Your task to perform on an android device: turn off notifications in google photos Image 0: 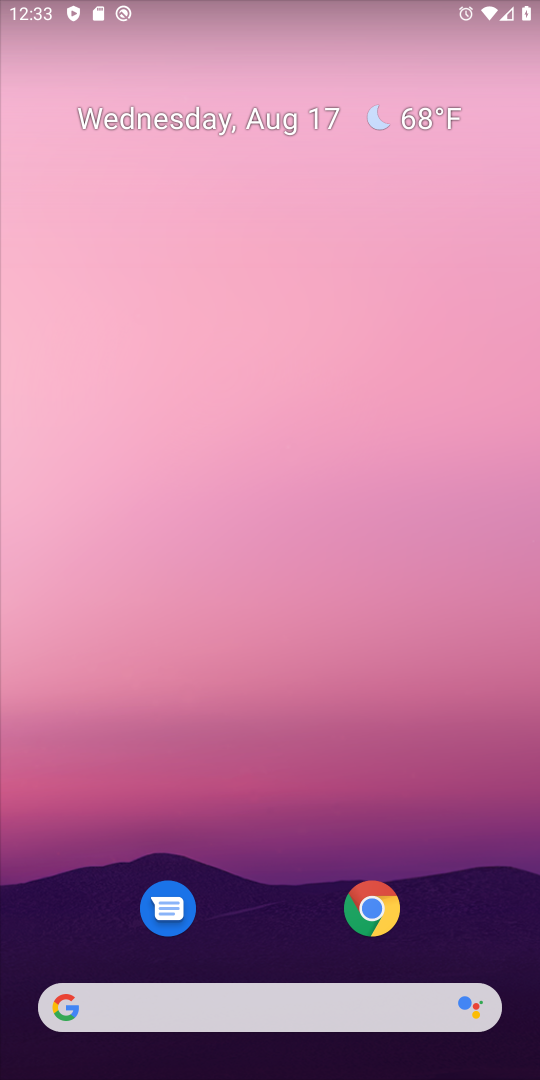
Step 0: drag from (267, 903) to (286, 269)
Your task to perform on an android device: turn off notifications in google photos Image 1: 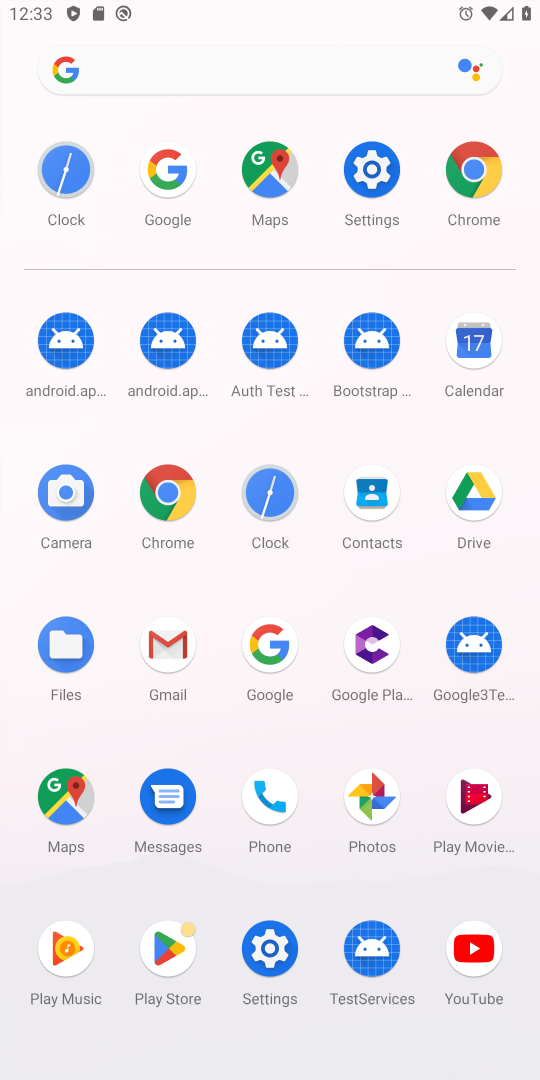
Step 1: click (373, 806)
Your task to perform on an android device: turn off notifications in google photos Image 2: 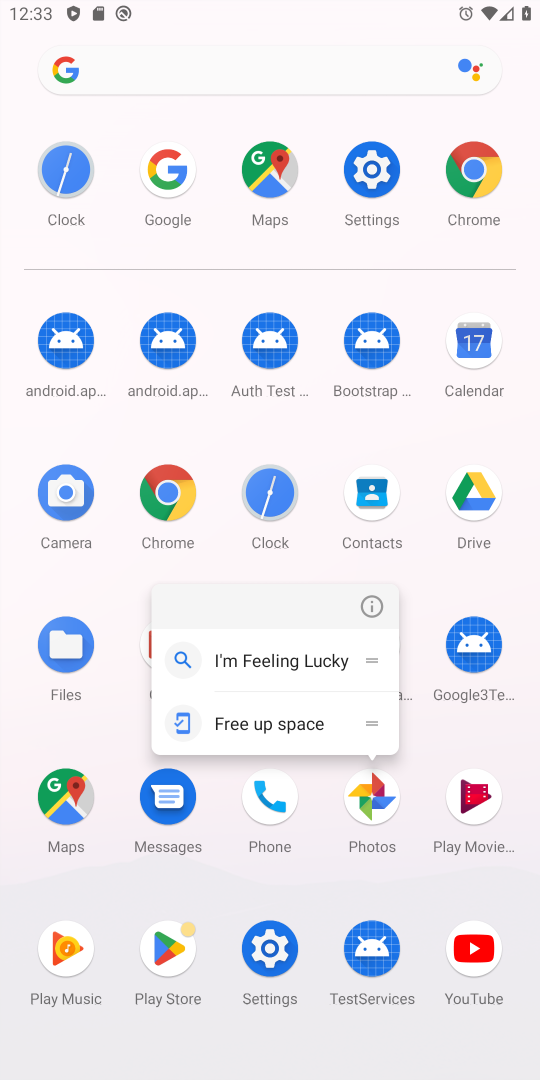
Step 2: click (373, 806)
Your task to perform on an android device: turn off notifications in google photos Image 3: 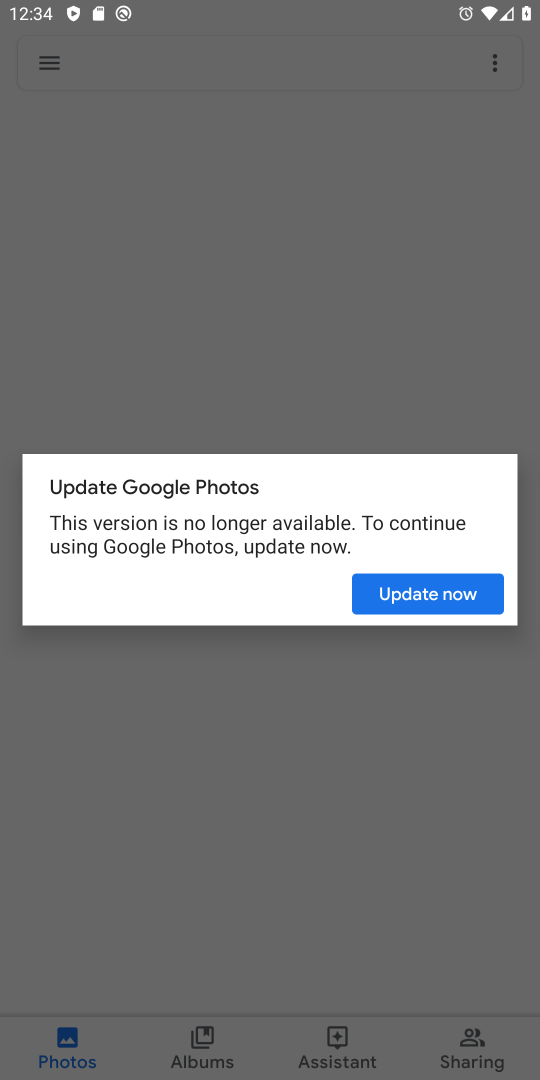
Step 3: click (387, 604)
Your task to perform on an android device: turn off notifications in google photos Image 4: 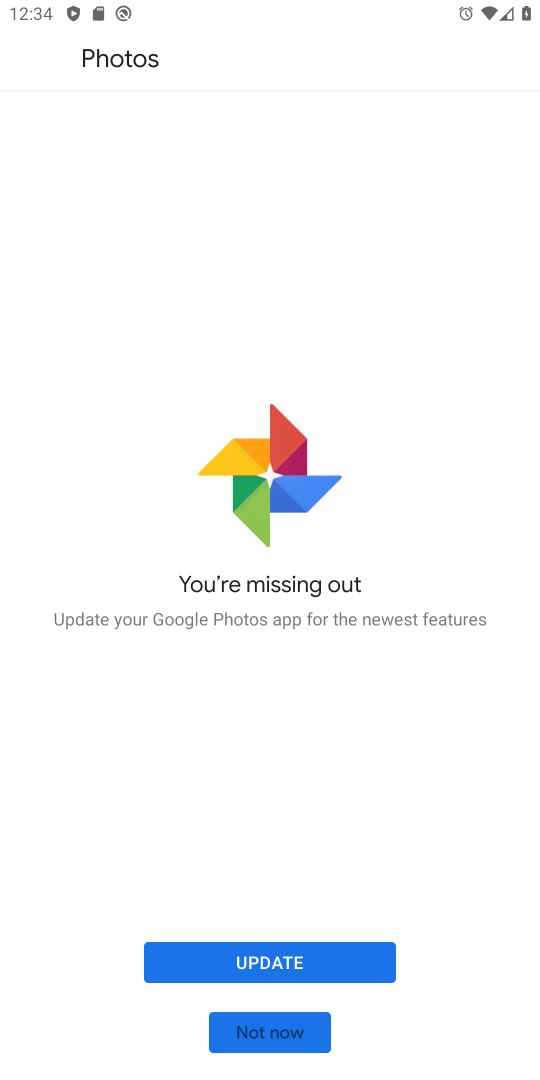
Step 4: click (263, 1014)
Your task to perform on an android device: turn off notifications in google photos Image 5: 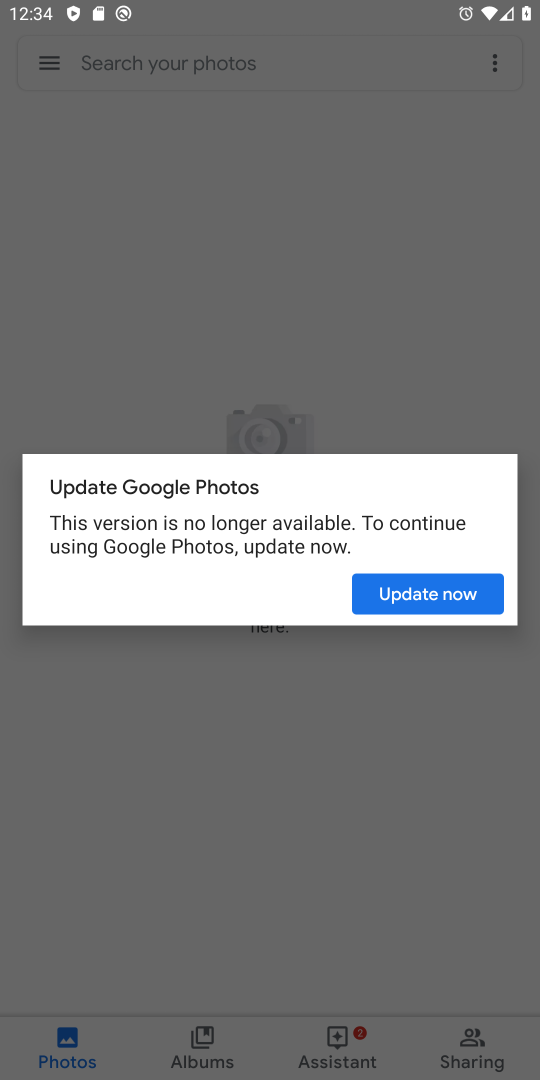
Step 5: click (456, 597)
Your task to perform on an android device: turn off notifications in google photos Image 6: 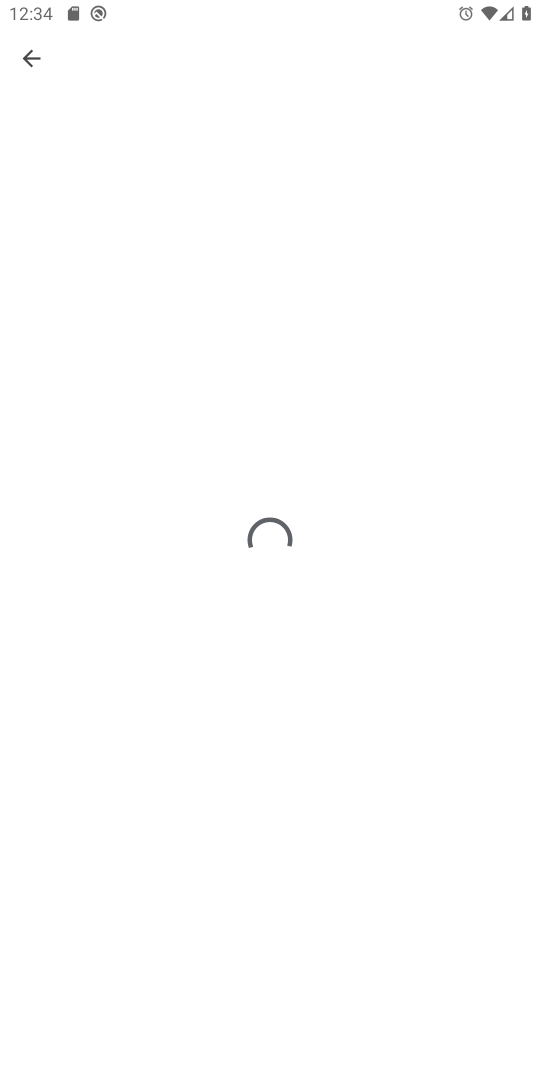
Step 6: press back button
Your task to perform on an android device: turn off notifications in google photos Image 7: 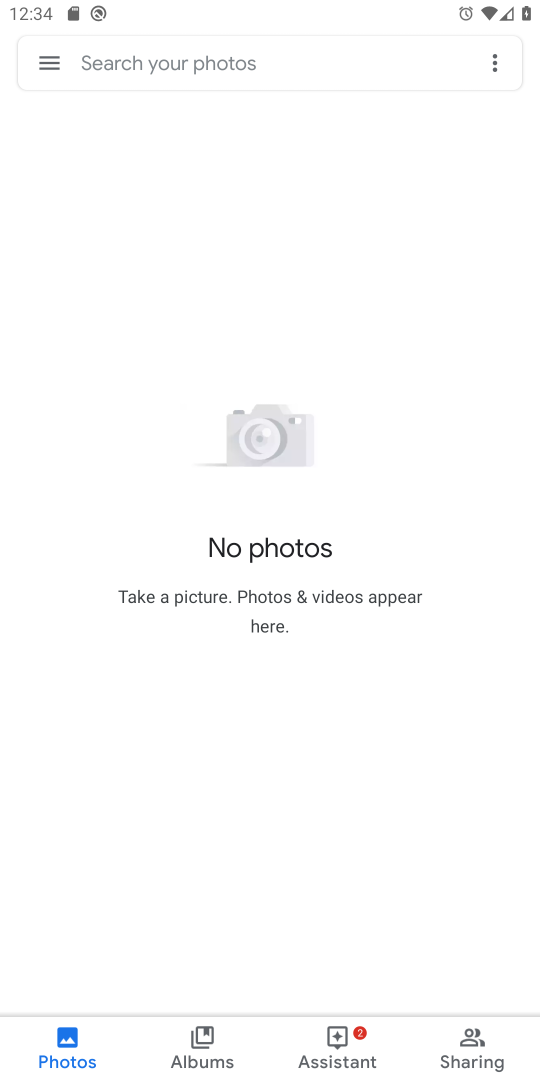
Step 7: click (43, 66)
Your task to perform on an android device: turn off notifications in google photos Image 8: 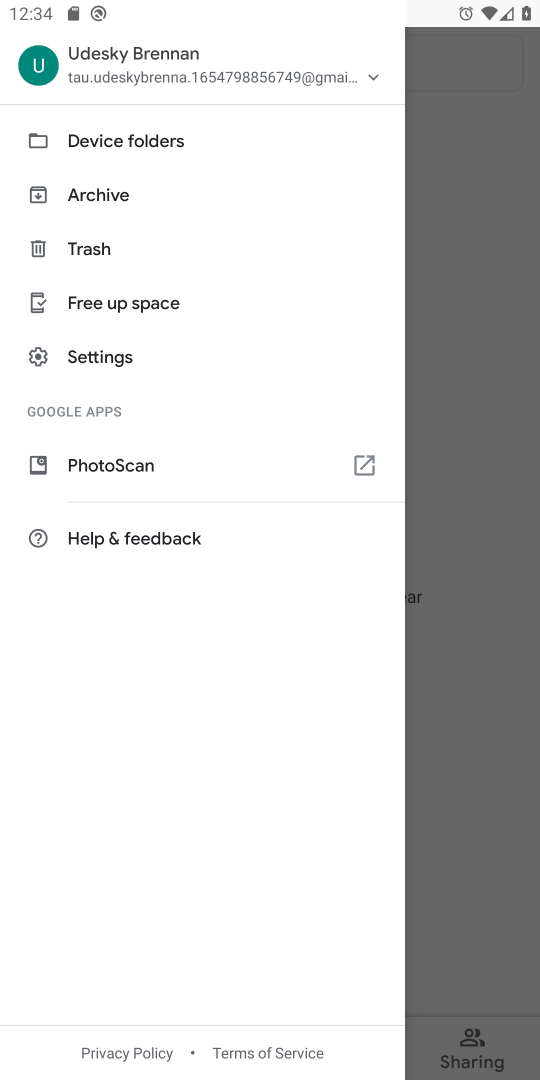
Step 8: click (80, 351)
Your task to perform on an android device: turn off notifications in google photos Image 9: 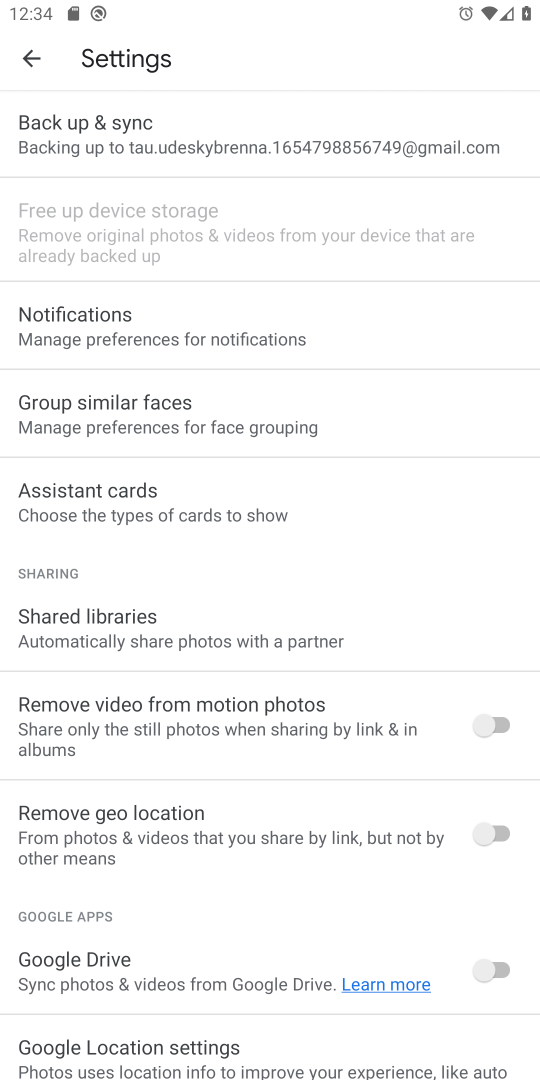
Step 9: click (133, 322)
Your task to perform on an android device: turn off notifications in google photos Image 10: 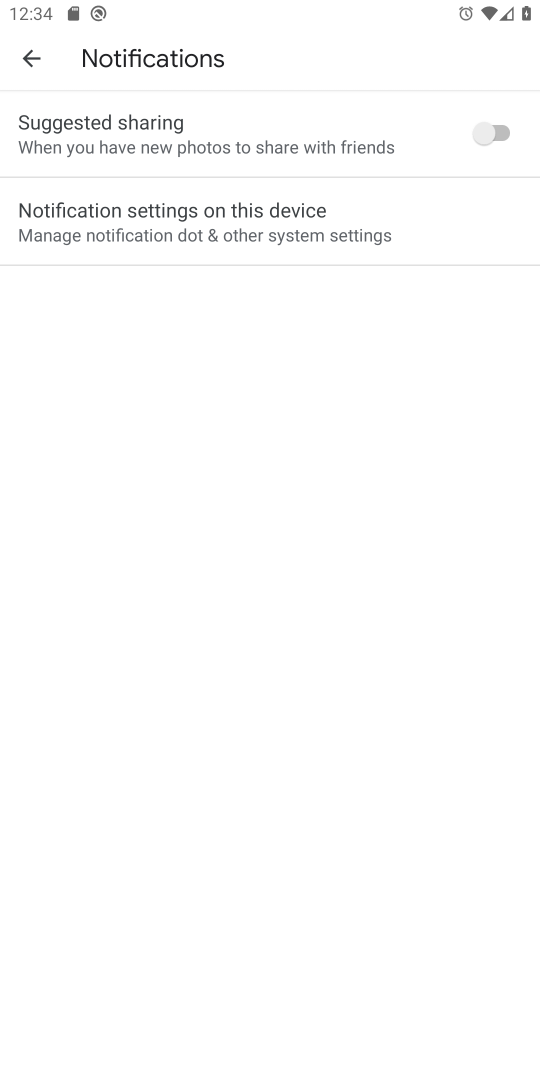
Step 10: click (154, 246)
Your task to perform on an android device: turn off notifications in google photos Image 11: 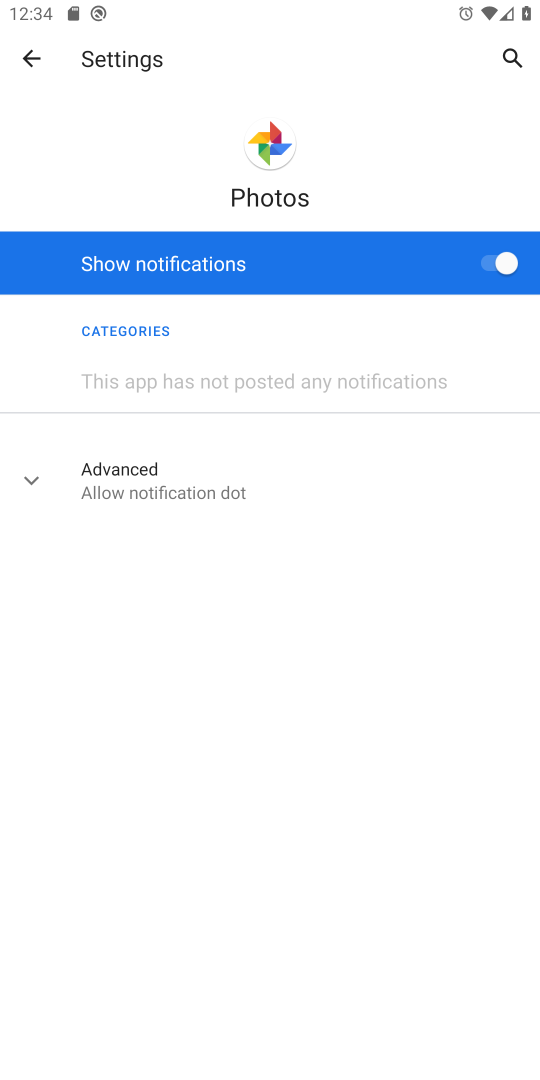
Step 11: task complete